Your task to perform on an android device: turn vacation reply on in the gmail app Image 0: 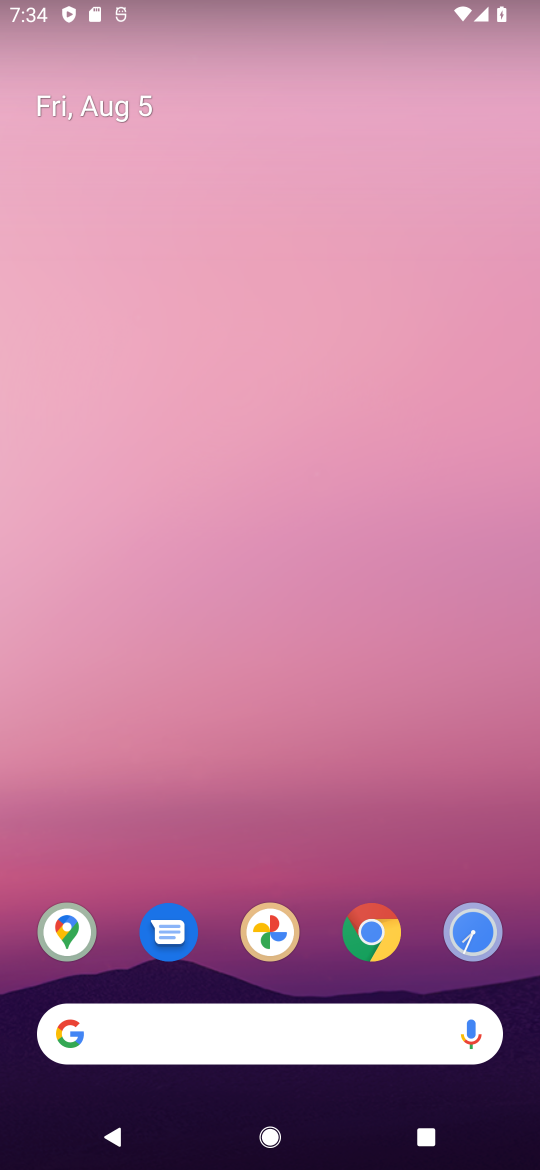
Step 0: drag from (420, 837) to (520, 165)
Your task to perform on an android device: turn vacation reply on in the gmail app Image 1: 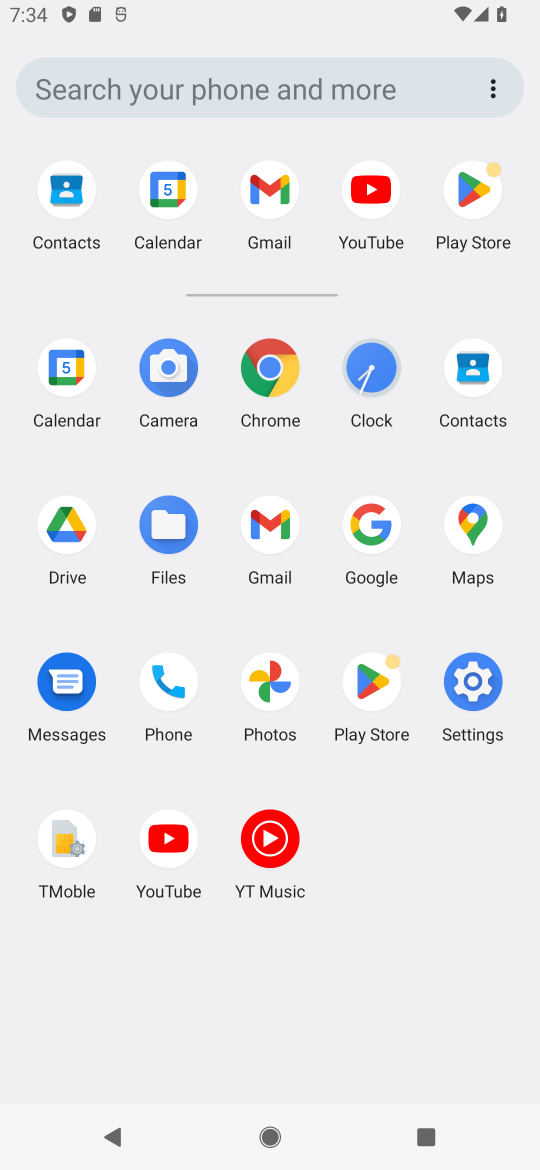
Step 1: click (279, 530)
Your task to perform on an android device: turn vacation reply on in the gmail app Image 2: 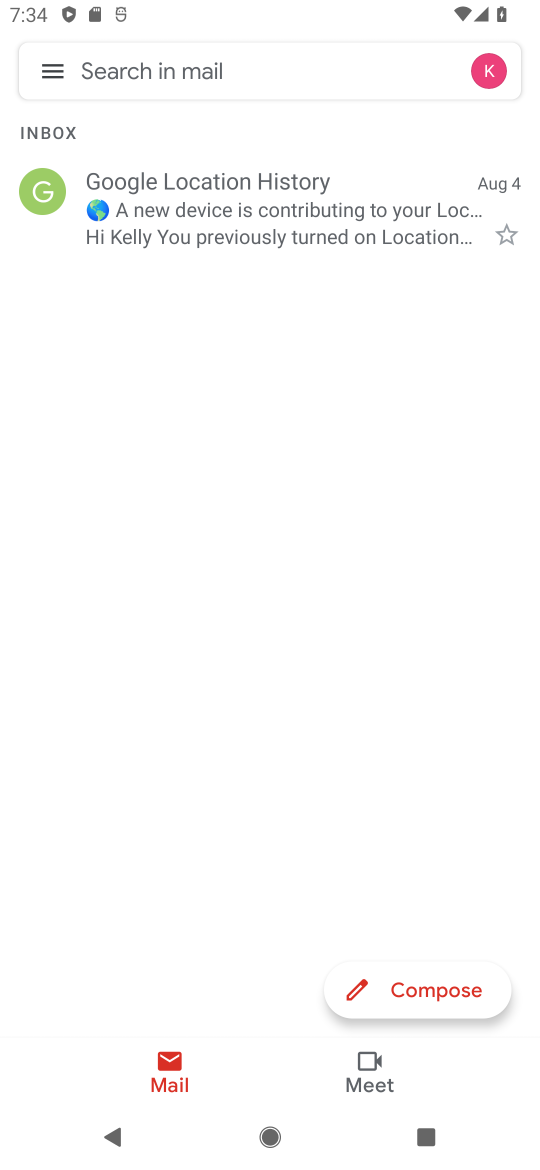
Step 2: click (59, 62)
Your task to perform on an android device: turn vacation reply on in the gmail app Image 3: 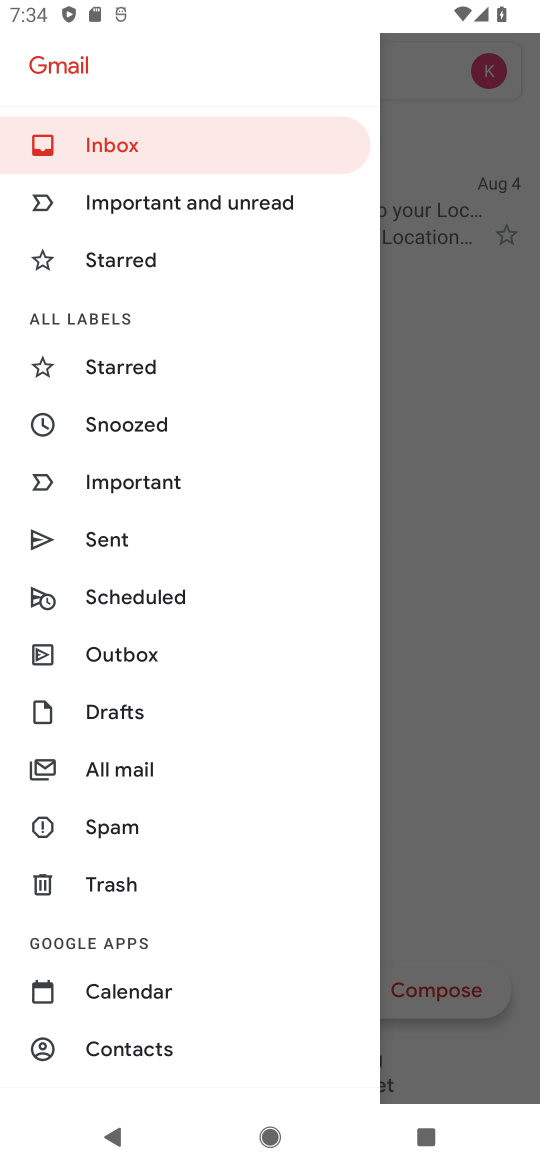
Step 3: drag from (195, 1045) to (282, 584)
Your task to perform on an android device: turn vacation reply on in the gmail app Image 4: 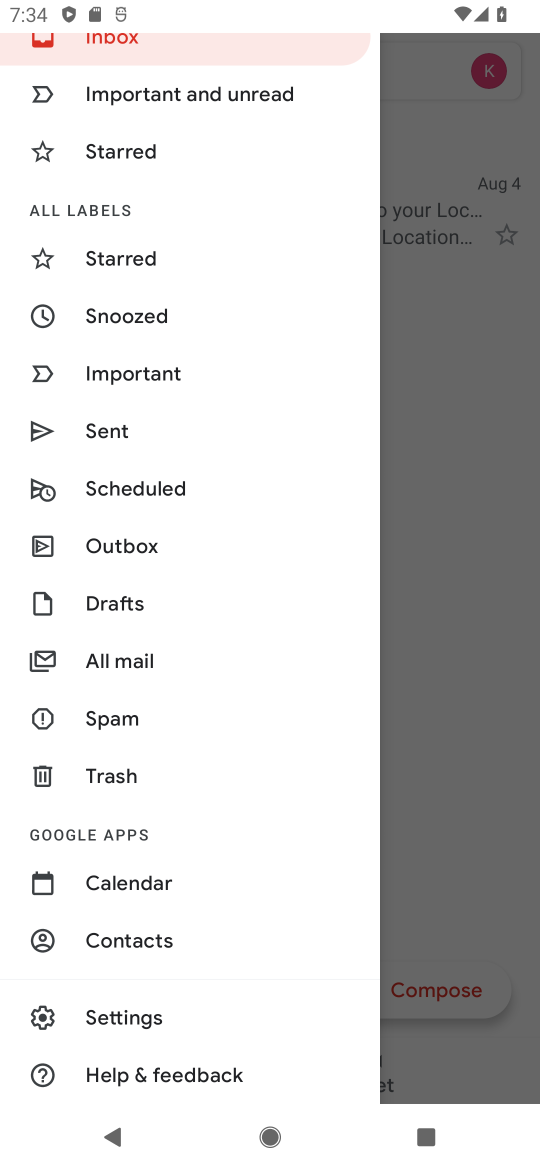
Step 4: click (136, 1023)
Your task to perform on an android device: turn vacation reply on in the gmail app Image 5: 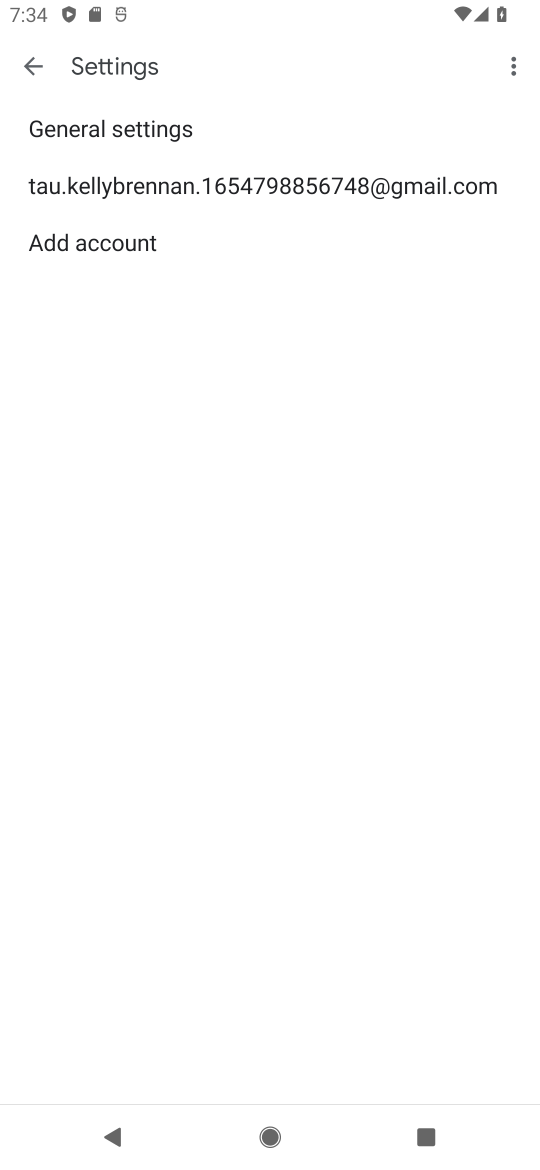
Step 5: click (321, 204)
Your task to perform on an android device: turn vacation reply on in the gmail app Image 6: 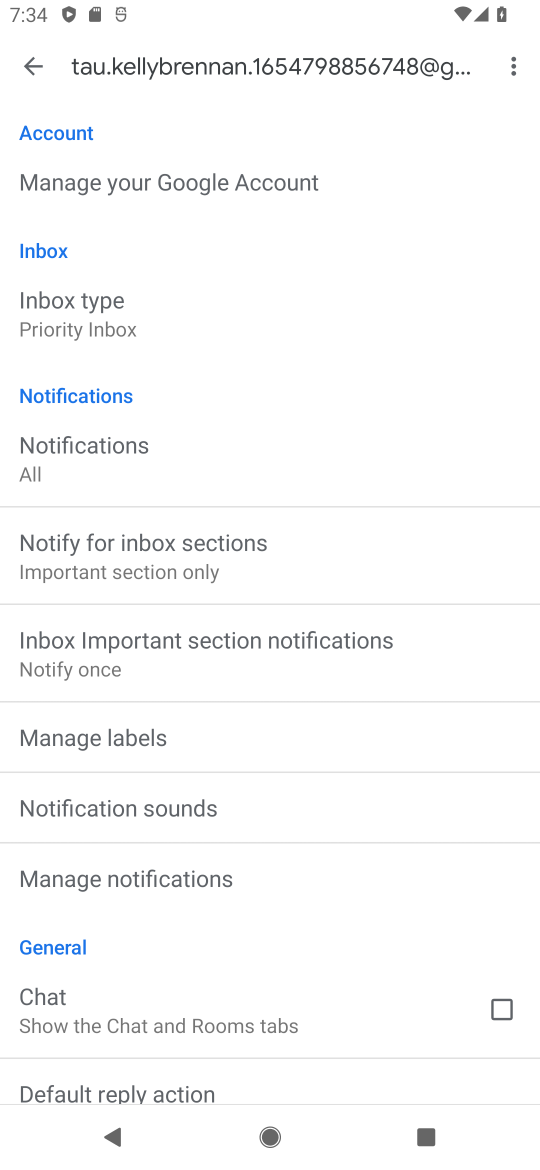
Step 6: click (107, 300)
Your task to perform on an android device: turn vacation reply on in the gmail app Image 7: 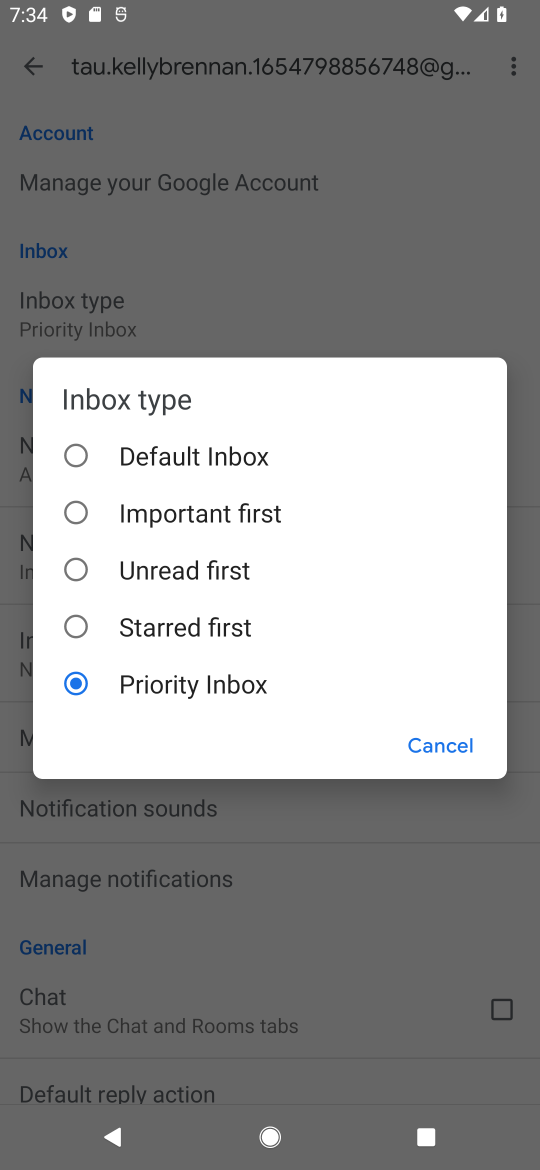
Step 7: click (233, 252)
Your task to perform on an android device: turn vacation reply on in the gmail app Image 8: 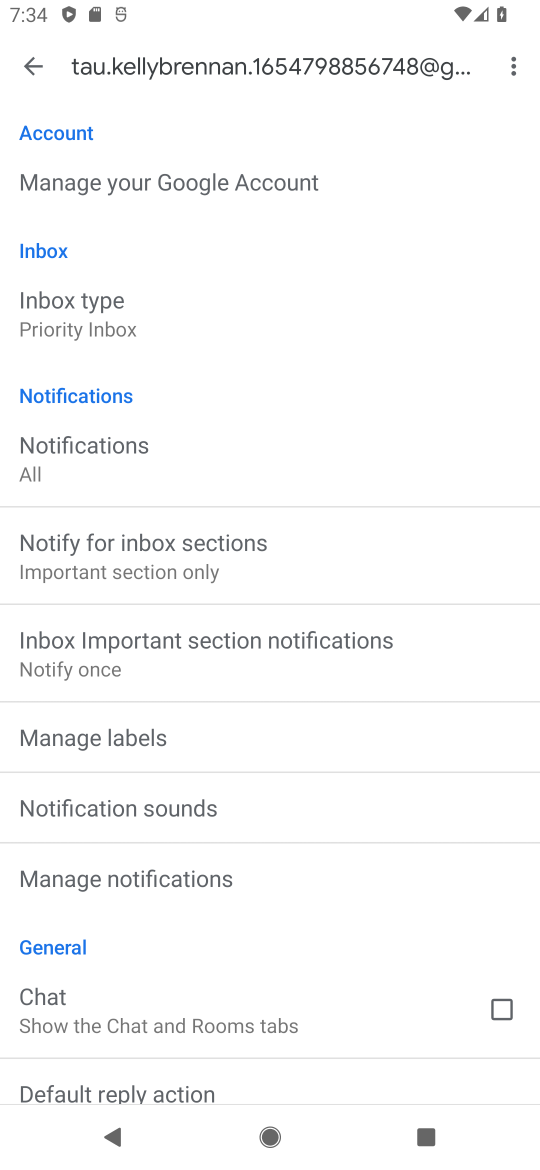
Step 8: drag from (350, 794) to (430, 143)
Your task to perform on an android device: turn vacation reply on in the gmail app Image 9: 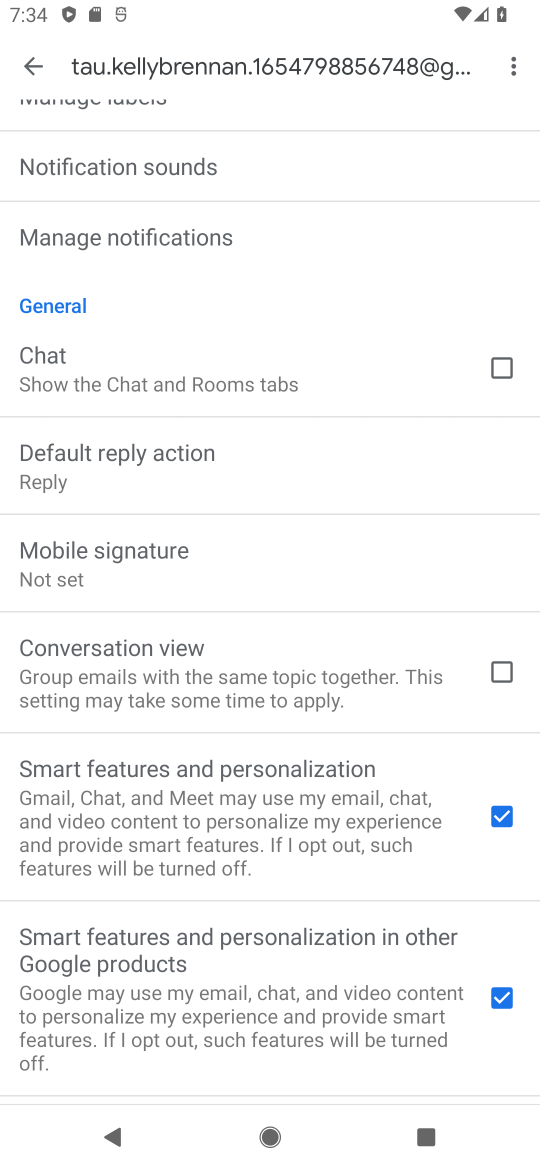
Step 9: drag from (288, 976) to (256, 579)
Your task to perform on an android device: turn vacation reply on in the gmail app Image 10: 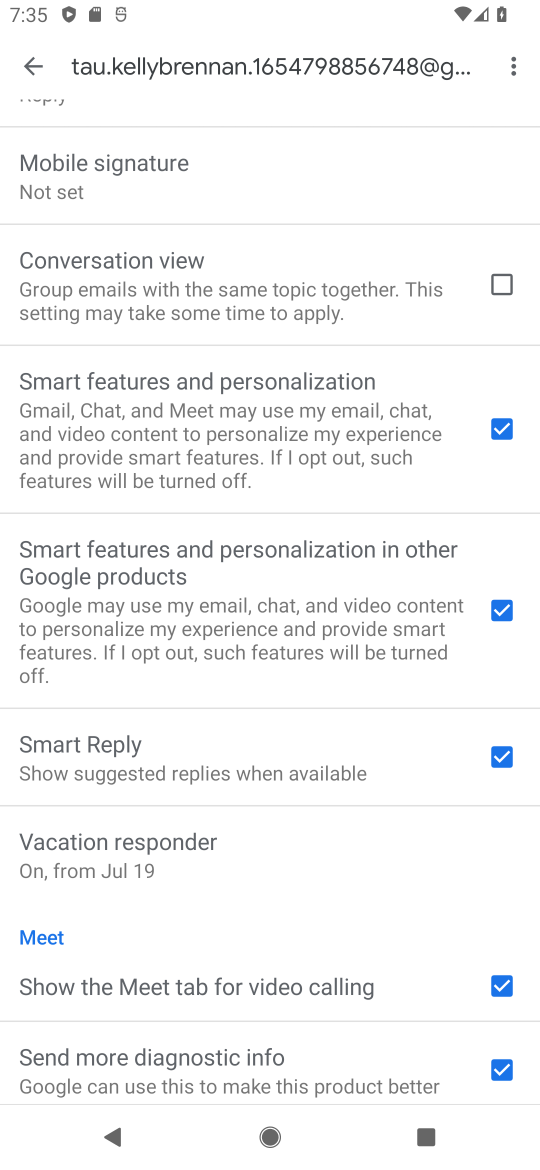
Step 10: drag from (261, 180) to (212, 955)
Your task to perform on an android device: turn vacation reply on in the gmail app Image 11: 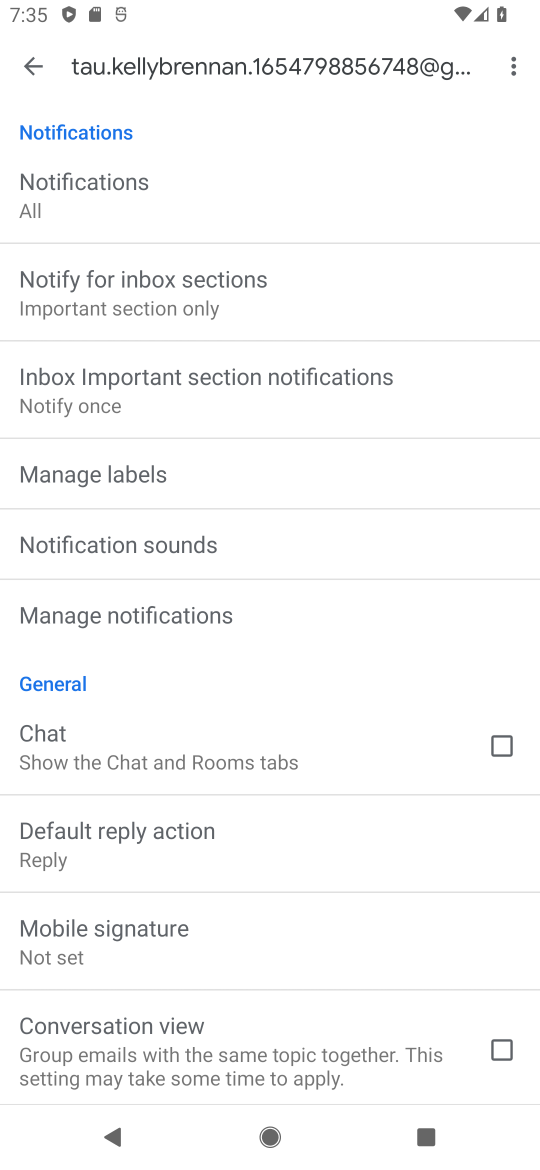
Step 11: drag from (312, 205) to (253, 928)
Your task to perform on an android device: turn vacation reply on in the gmail app Image 12: 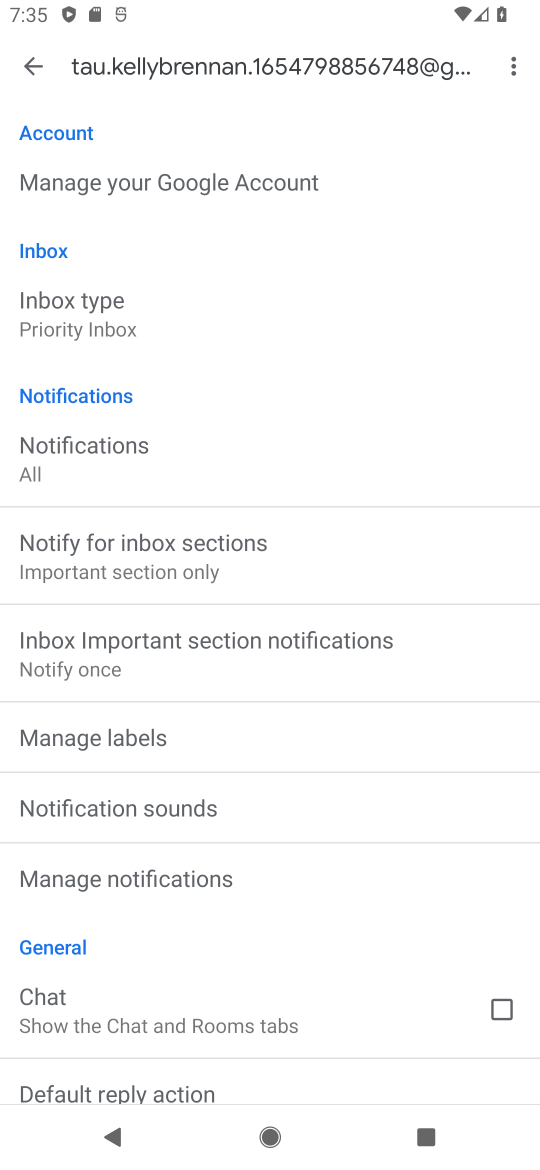
Step 12: drag from (333, 882) to (353, 78)
Your task to perform on an android device: turn vacation reply on in the gmail app Image 13: 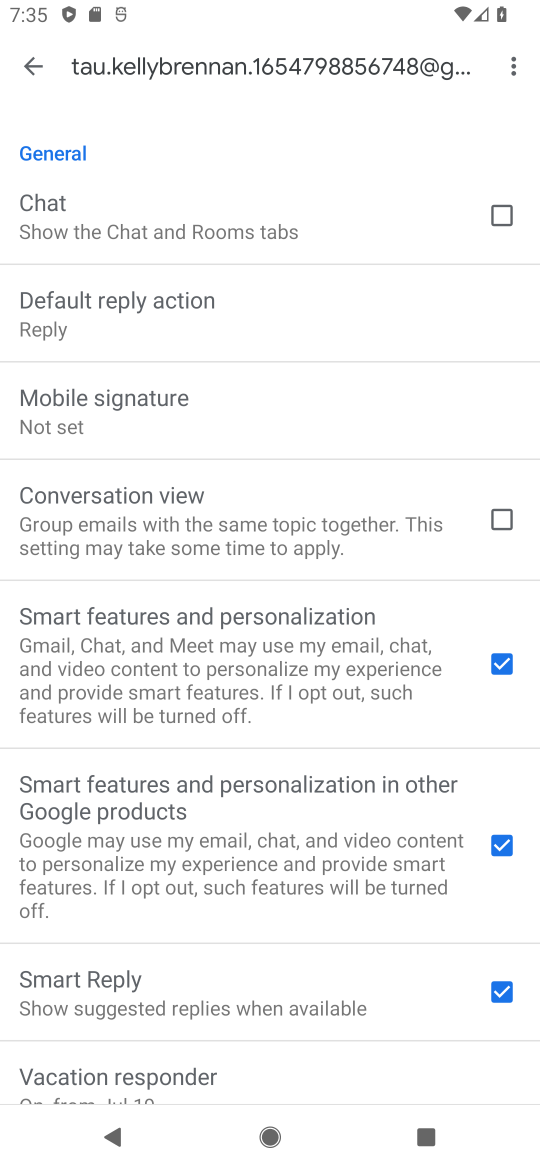
Step 13: drag from (265, 949) to (348, 241)
Your task to perform on an android device: turn vacation reply on in the gmail app Image 14: 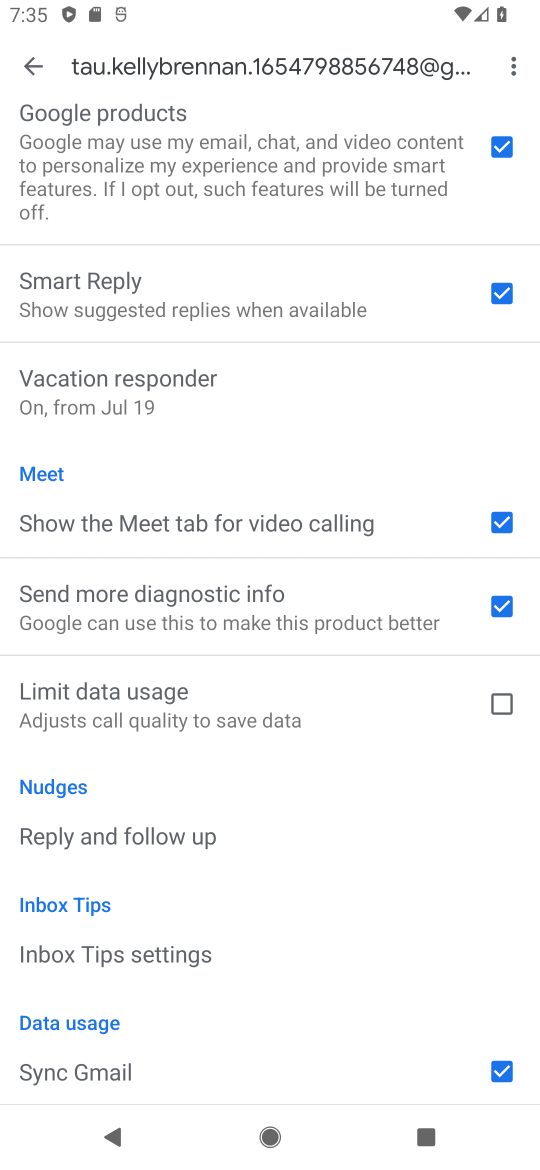
Step 14: click (207, 378)
Your task to perform on an android device: turn vacation reply on in the gmail app Image 15: 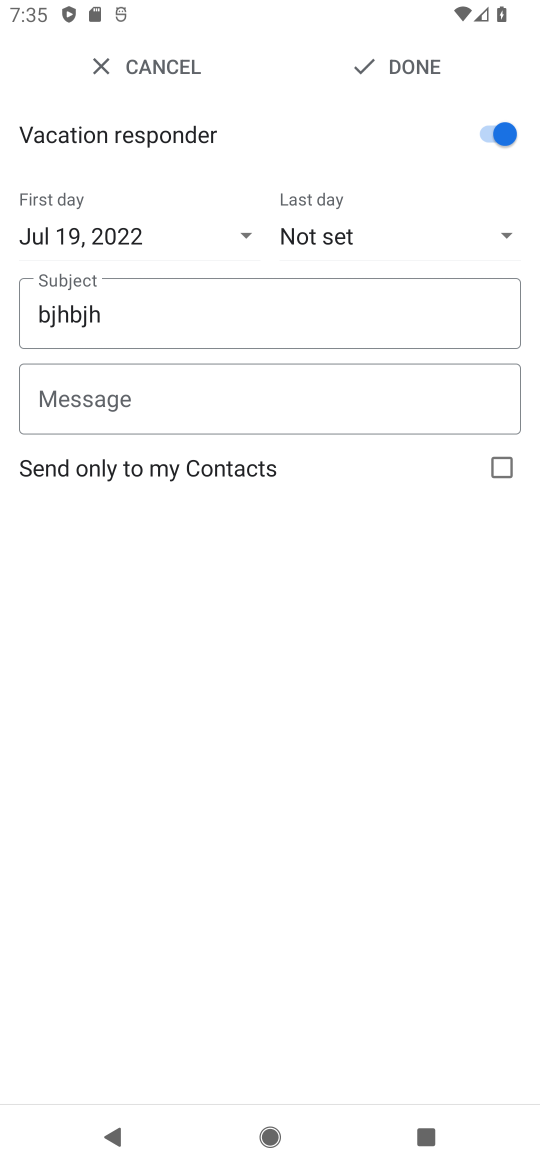
Step 15: task complete